Your task to perform on an android device: Go to eBay Image 0: 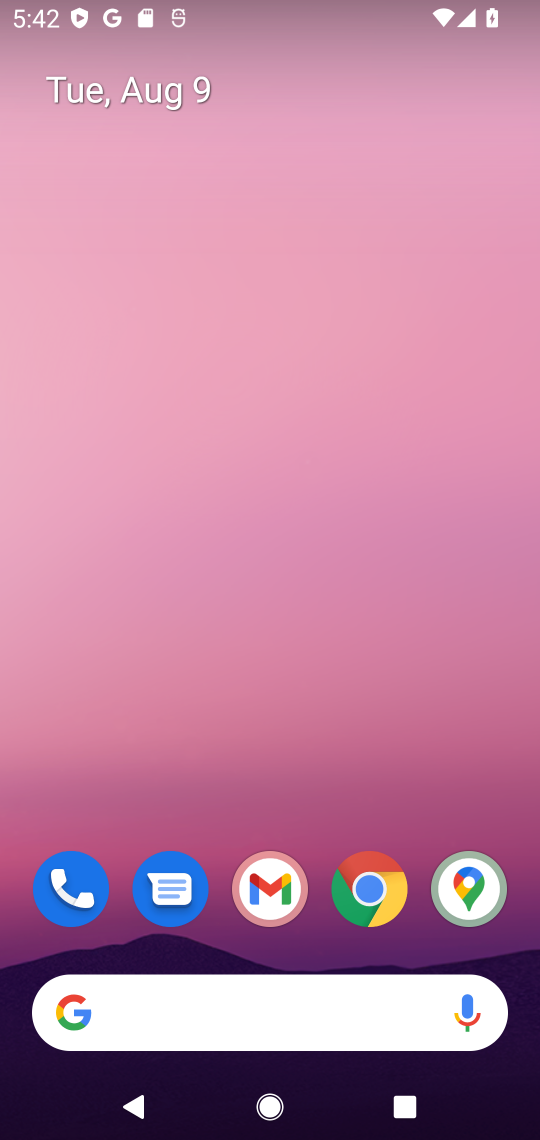
Step 0: click (380, 895)
Your task to perform on an android device: Go to eBay Image 1: 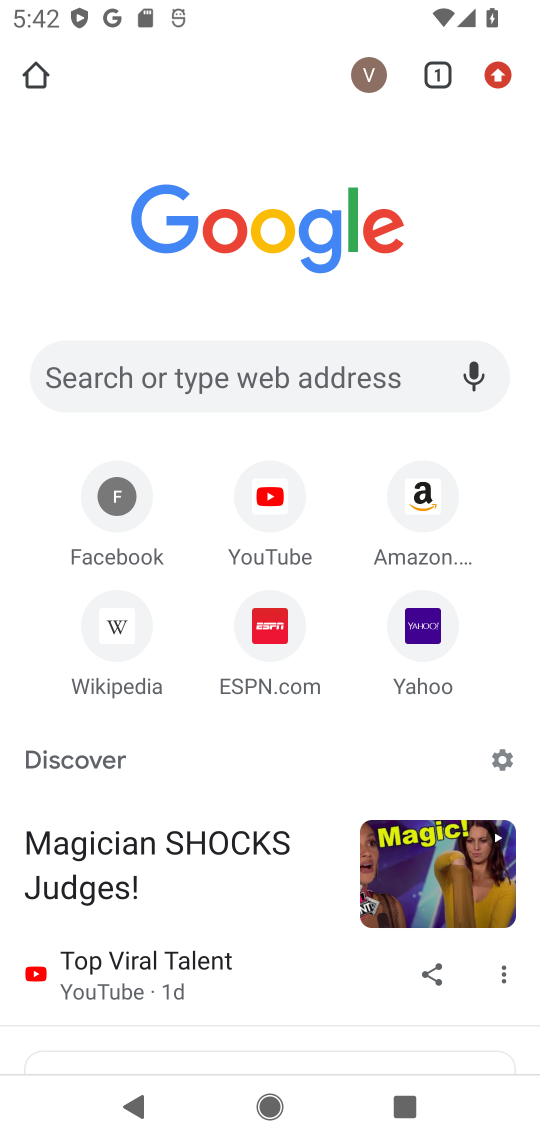
Step 1: click (245, 346)
Your task to perform on an android device: Go to eBay Image 2: 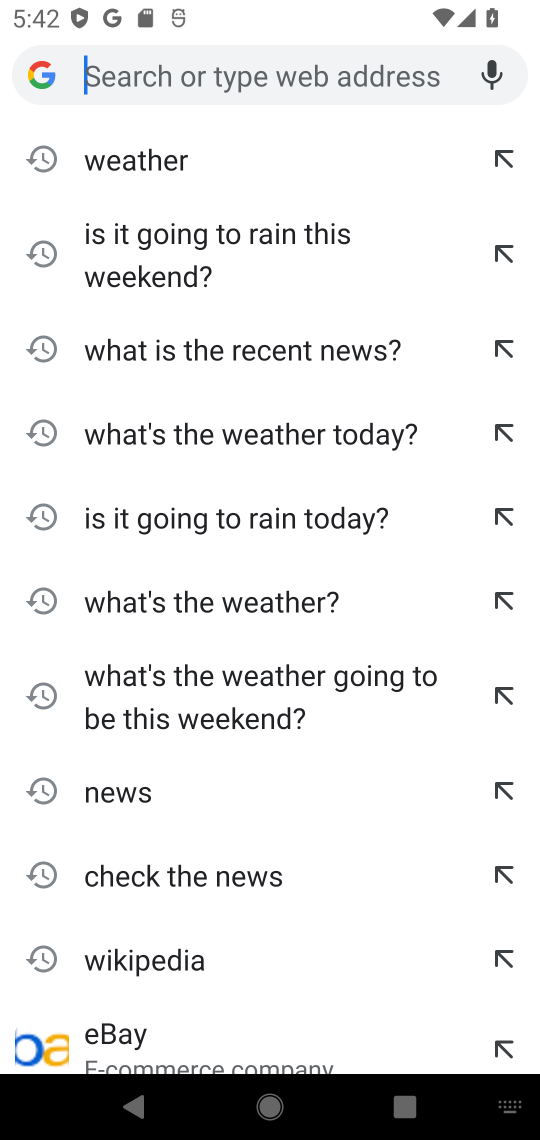
Step 2: type "ebay"
Your task to perform on an android device: Go to eBay Image 3: 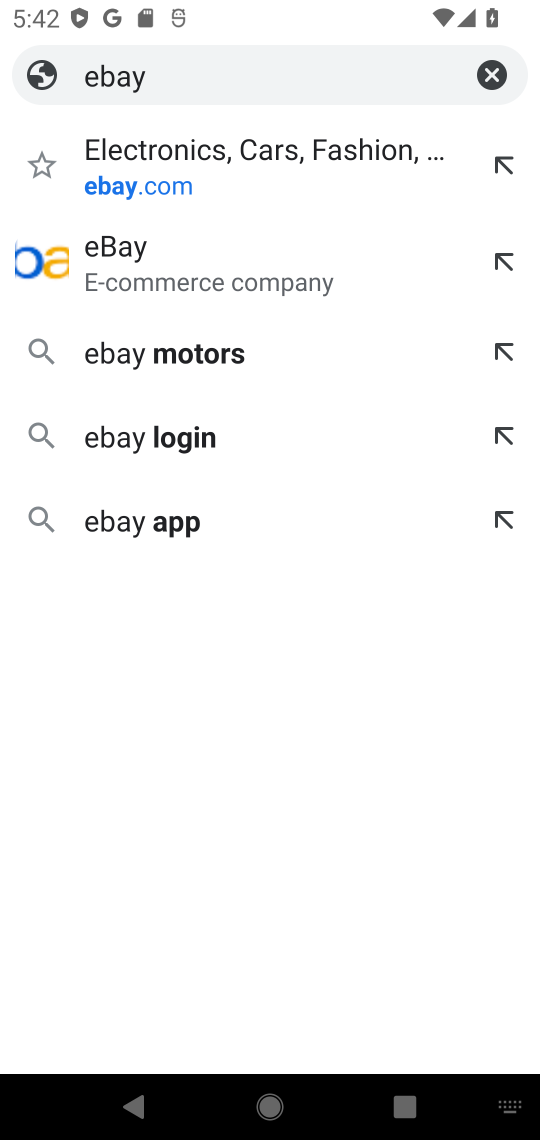
Step 3: click (194, 164)
Your task to perform on an android device: Go to eBay Image 4: 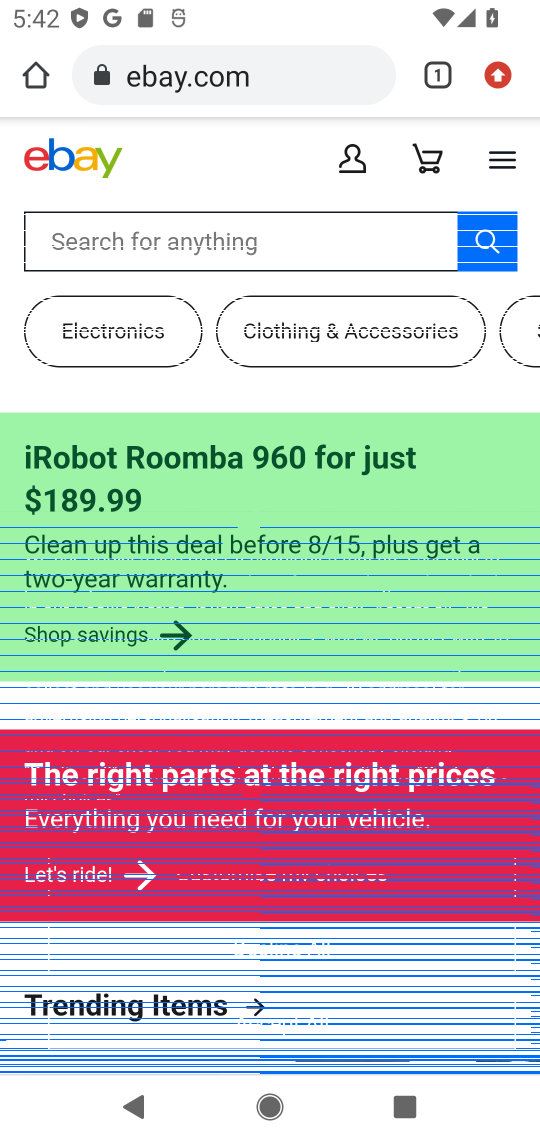
Step 4: task complete